Your task to perform on an android device: Open the stopwatch Image 0: 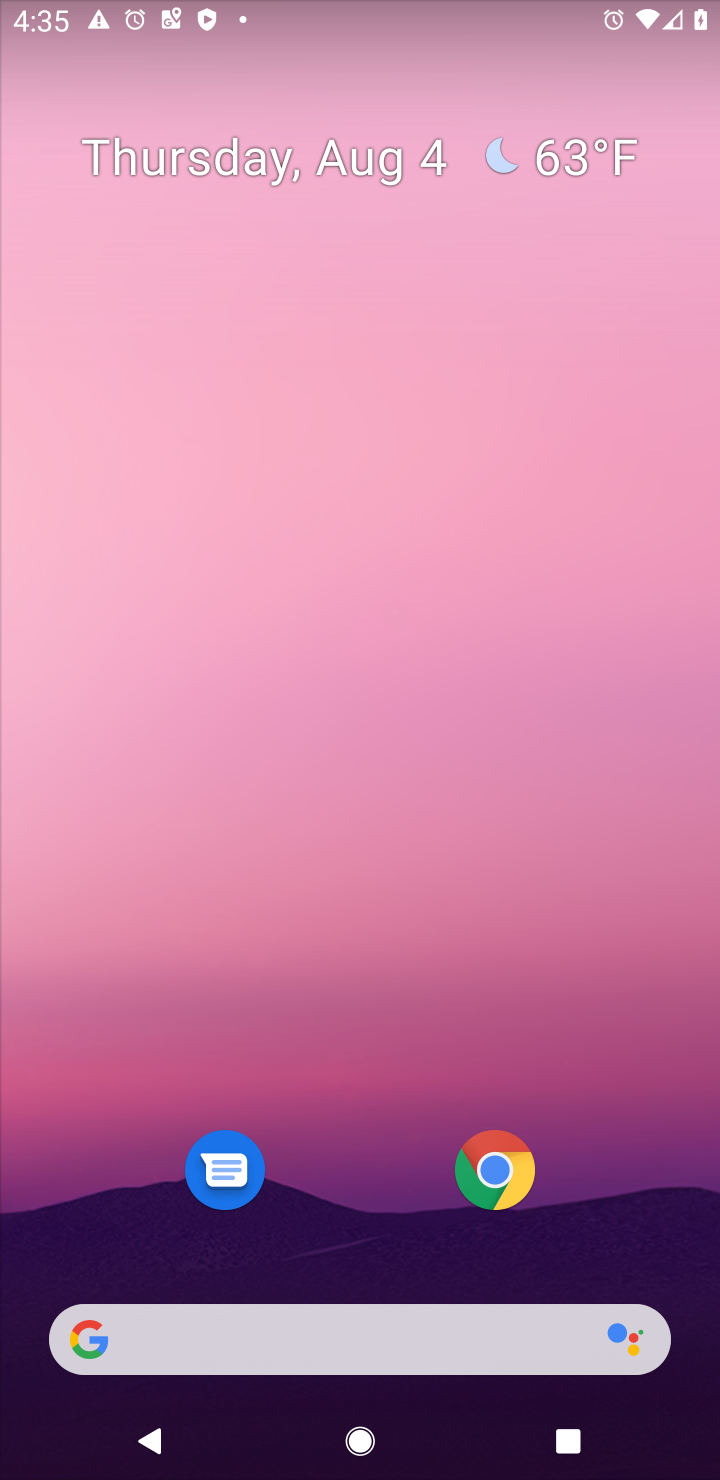
Step 0: drag from (602, 1091) to (481, 210)
Your task to perform on an android device: Open the stopwatch Image 1: 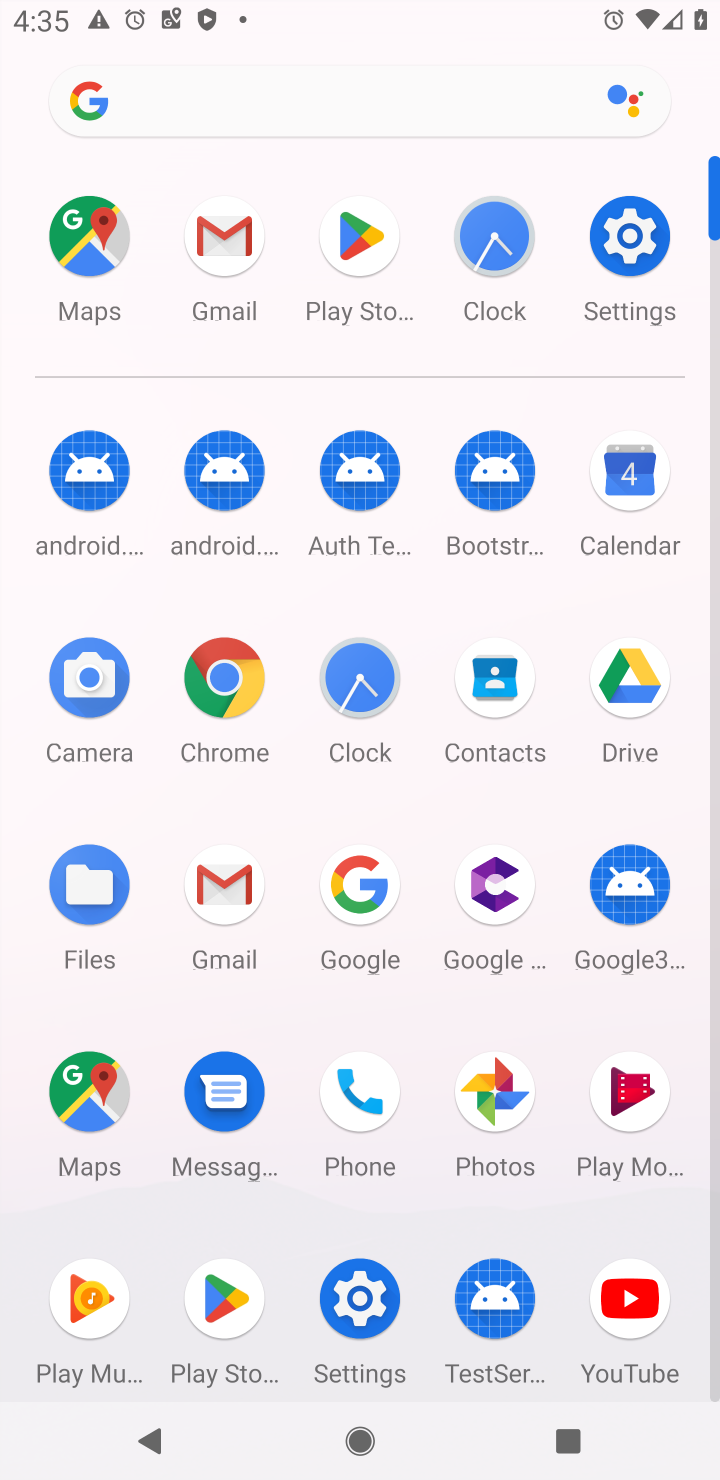
Step 1: click (363, 682)
Your task to perform on an android device: Open the stopwatch Image 2: 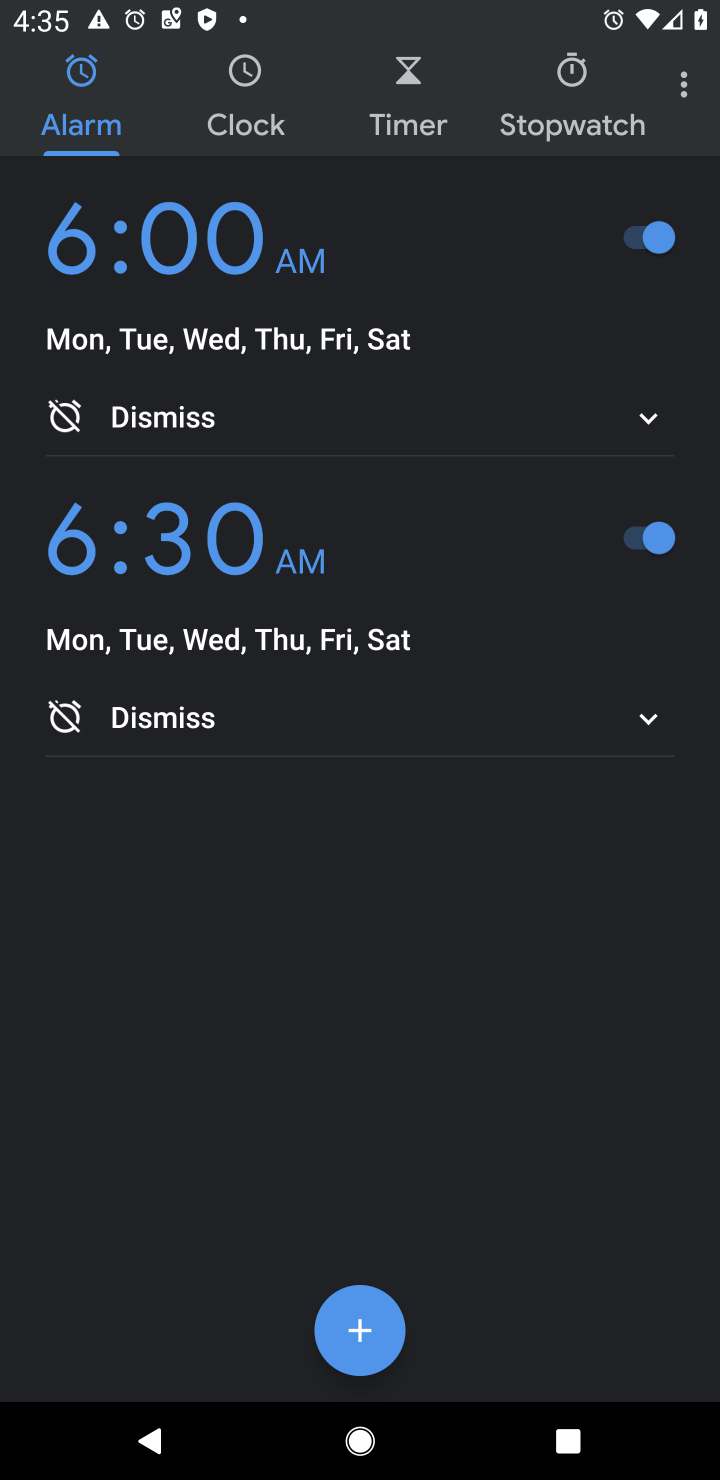
Step 2: click (569, 92)
Your task to perform on an android device: Open the stopwatch Image 3: 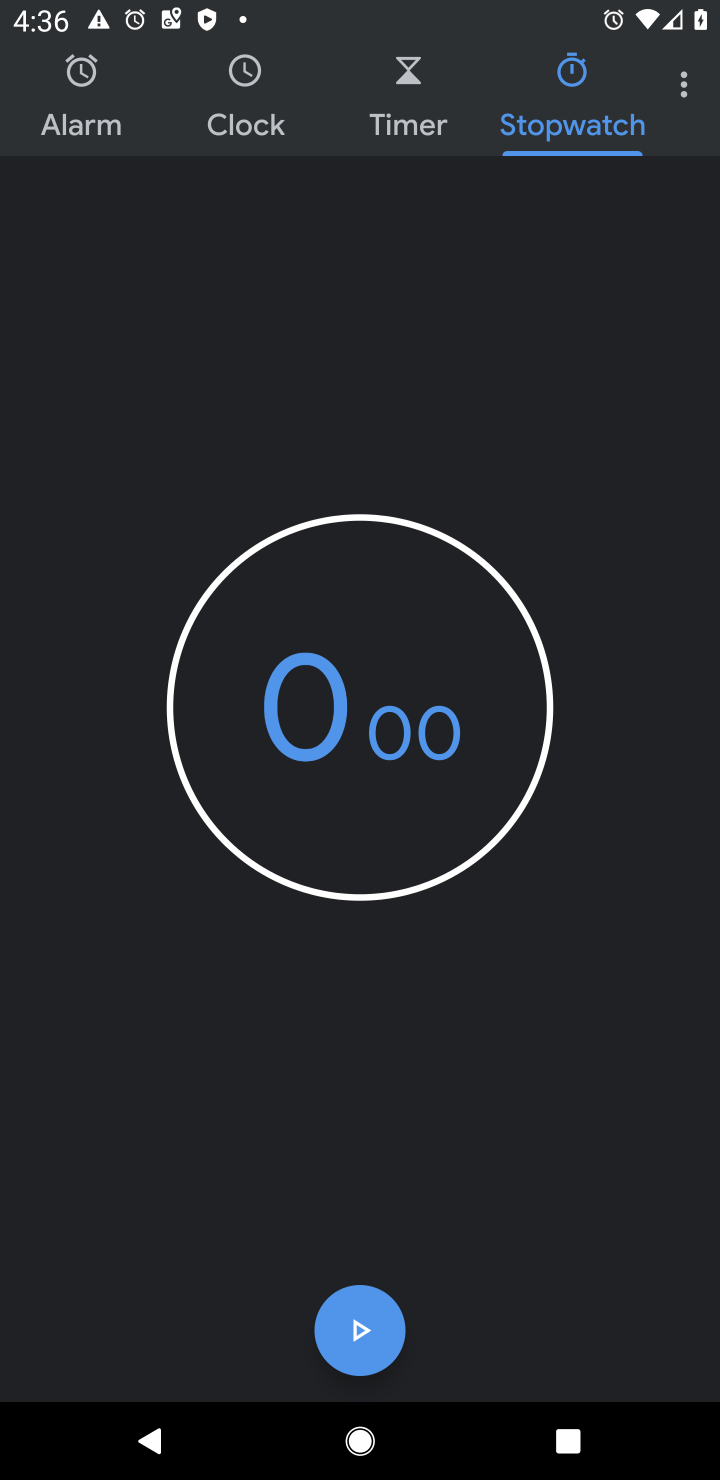
Step 3: task complete